Your task to perform on an android device: Open Youtube and go to the subscriptions tab Image 0: 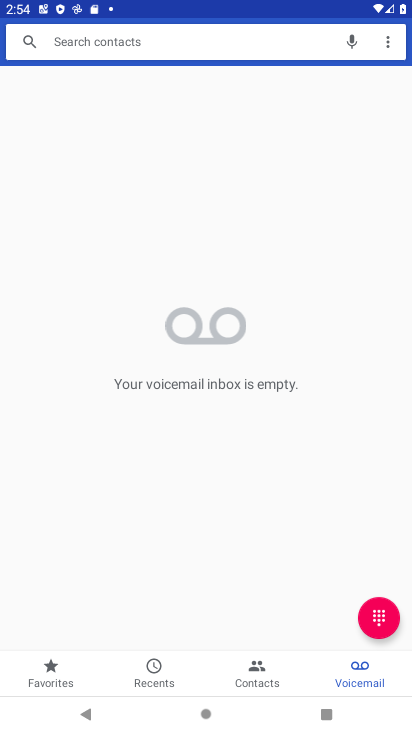
Step 0: press home button
Your task to perform on an android device: Open Youtube and go to the subscriptions tab Image 1: 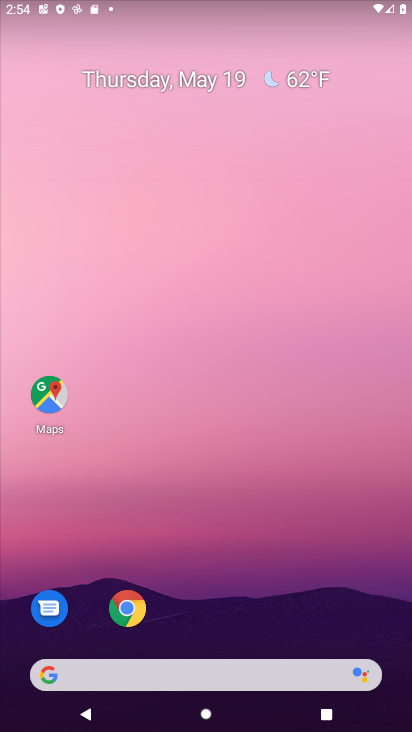
Step 1: drag from (296, 622) to (260, 181)
Your task to perform on an android device: Open Youtube and go to the subscriptions tab Image 2: 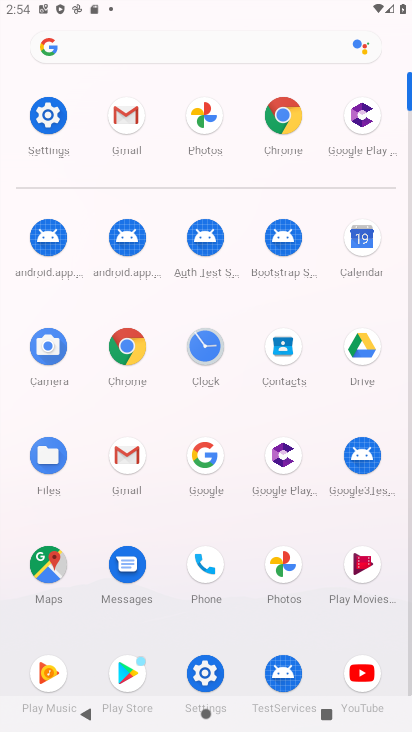
Step 2: click (357, 683)
Your task to perform on an android device: Open Youtube and go to the subscriptions tab Image 3: 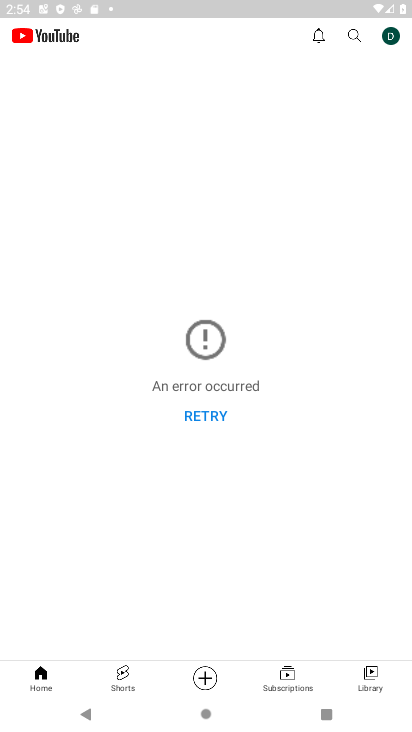
Step 3: press back button
Your task to perform on an android device: Open Youtube and go to the subscriptions tab Image 4: 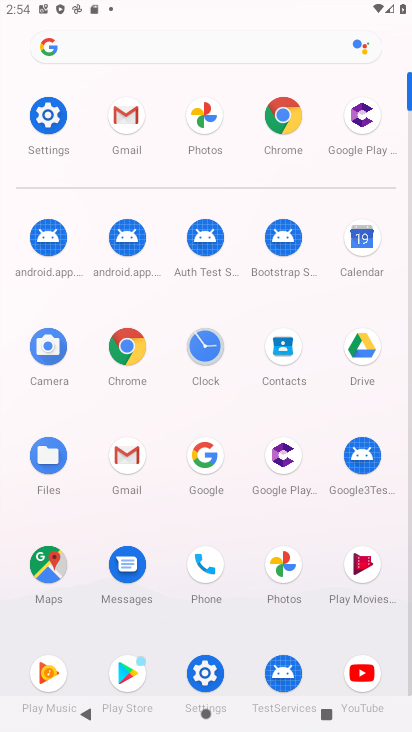
Step 4: click (358, 680)
Your task to perform on an android device: Open Youtube and go to the subscriptions tab Image 5: 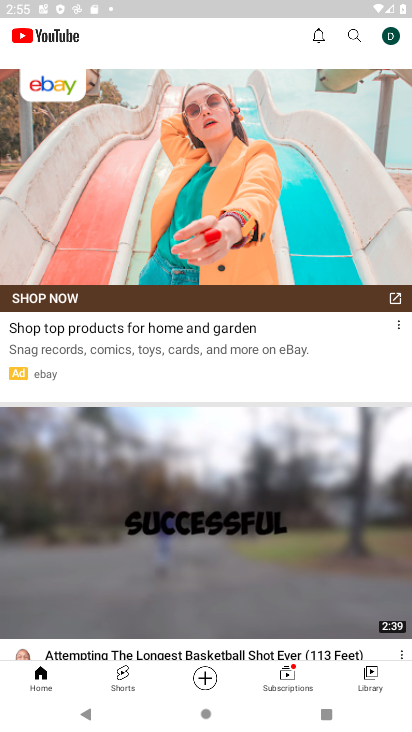
Step 5: click (283, 675)
Your task to perform on an android device: Open Youtube and go to the subscriptions tab Image 6: 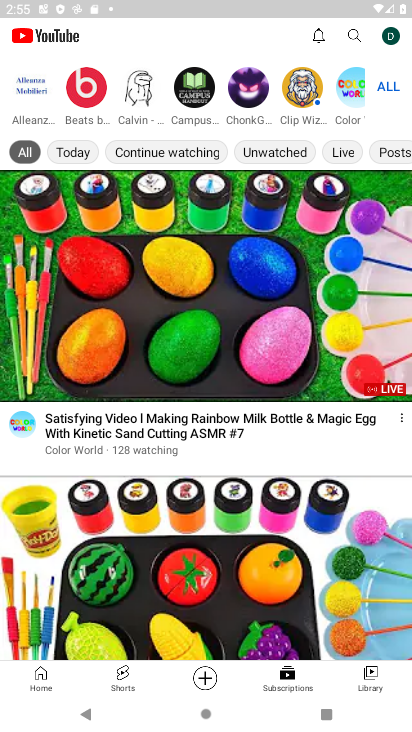
Step 6: task complete